Your task to perform on an android device: Go to network settings Image 0: 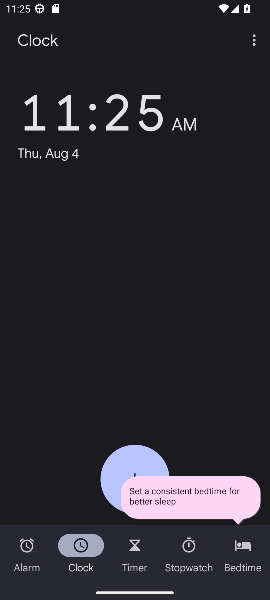
Step 0: press home button
Your task to perform on an android device: Go to network settings Image 1: 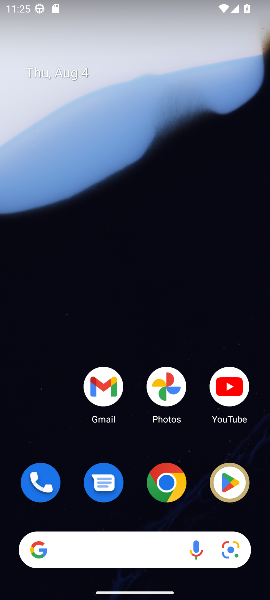
Step 1: drag from (126, 455) to (140, 50)
Your task to perform on an android device: Go to network settings Image 2: 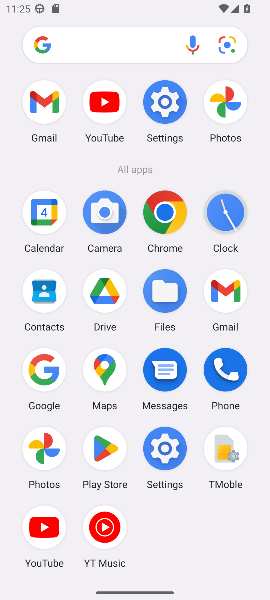
Step 2: click (168, 104)
Your task to perform on an android device: Go to network settings Image 3: 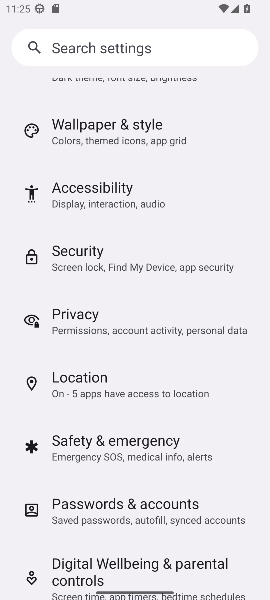
Step 3: drag from (160, 120) to (180, 384)
Your task to perform on an android device: Go to network settings Image 4: 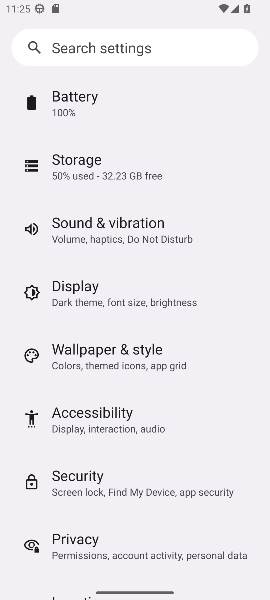
Step 4: drag from (123, 149) to (132, 438)
Your task to perform on an android device: Go to network settings Image 5: 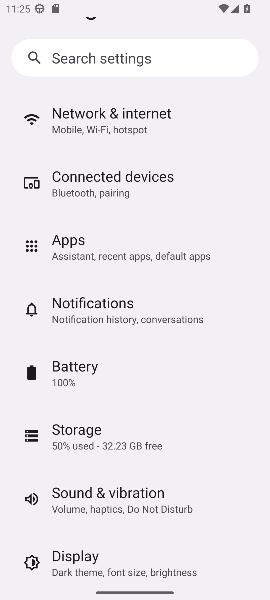
Step 5: click (122, 115)
Your task to perform on an android device: Go to network settings Image 6: 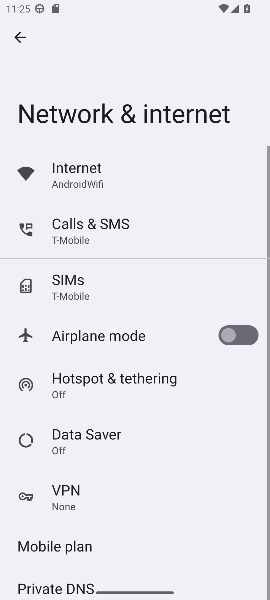
Step 6: task complete